Your task to perform on an android device: toggle wifi Image 0: 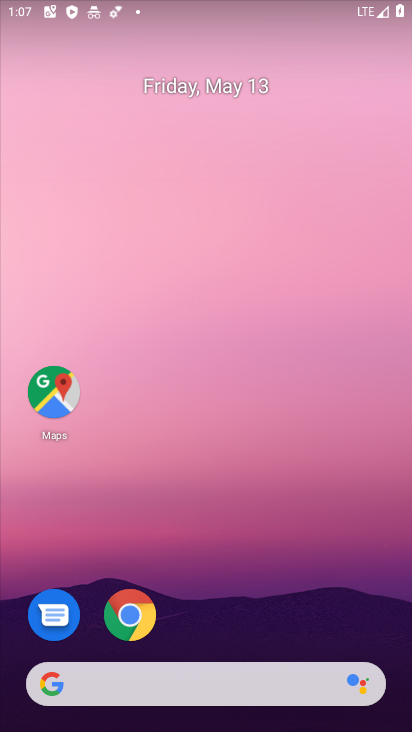
Step 0: drag from (219, 617) to (206, 234)
Your task to perform on an android device: toggle wifi Image 1: 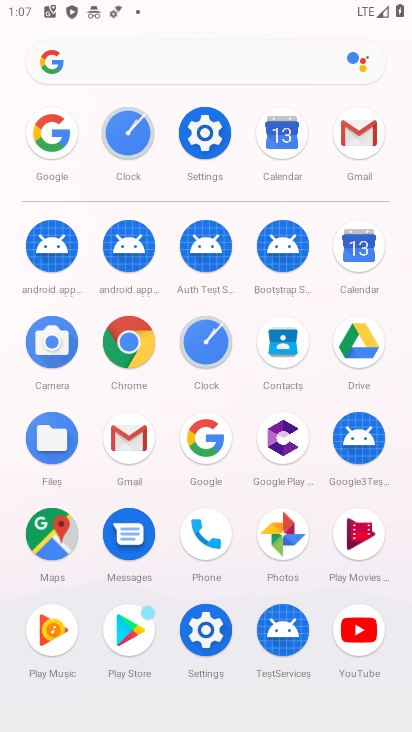
Step 1: click (198, 152)
Your task to perform on an android device: toggle wifi Image 2: 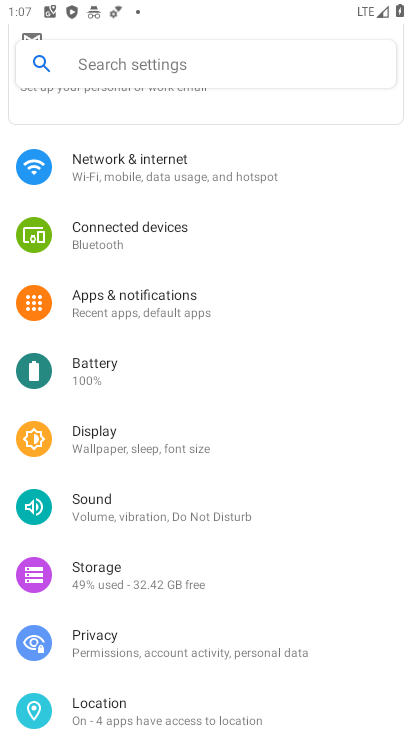
Step 2: click (198, 153)
Your task to perform on an android device: toggle wifi Image 3: 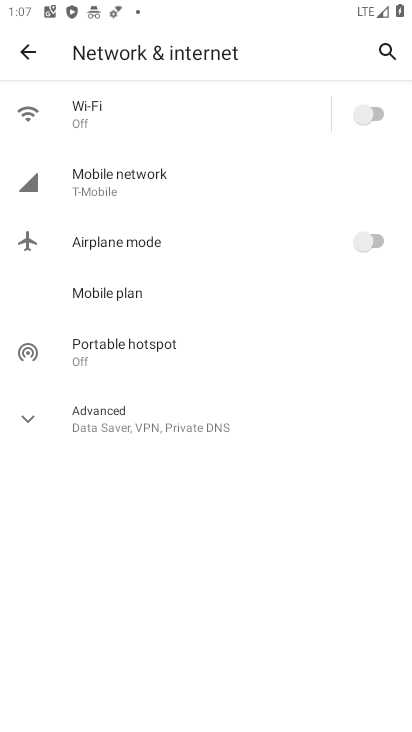
Step 3: click (125, 119)
Your task to perform on an android device: toggle wifi Image 4: 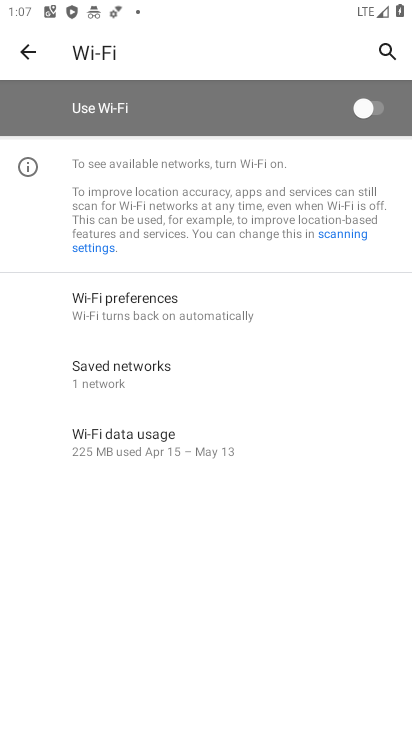
Step 4: click (369, 109)
Your task to perform on an android device: toggle wifi Image 5: 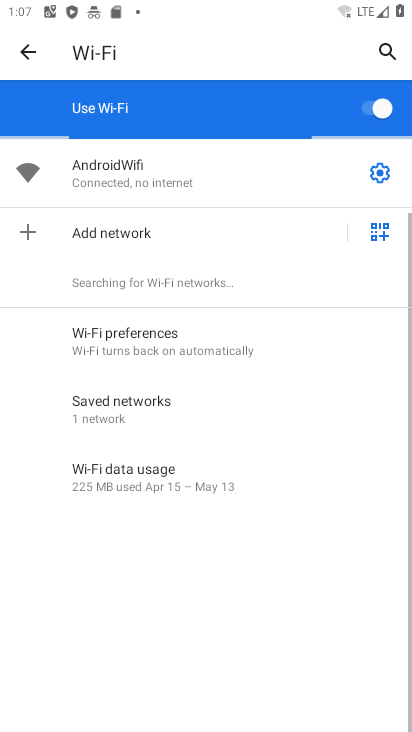
Step 5: task complete